Your task to perform on an android device: Open settings Image 0: 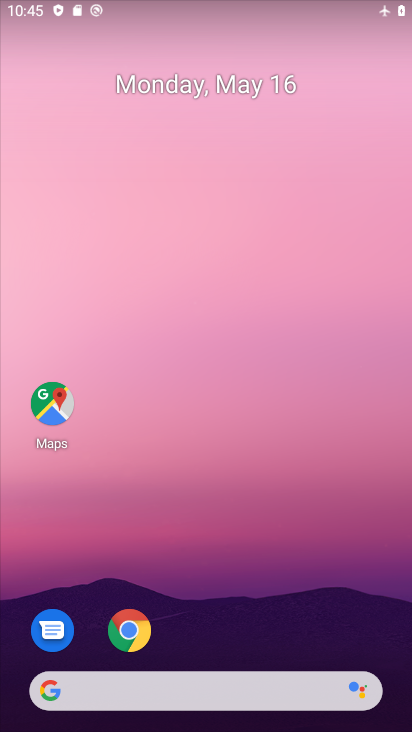
Step 0: drag from (211, 652) to (236, 213)
Your task to perform on an android device: Open settings Image 1: 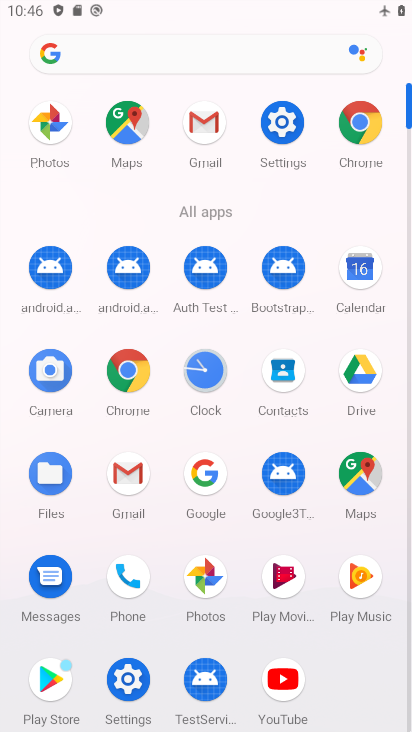
Step 1: click (279, 112)
Your task to perform on an android device: Open settings Image 2: 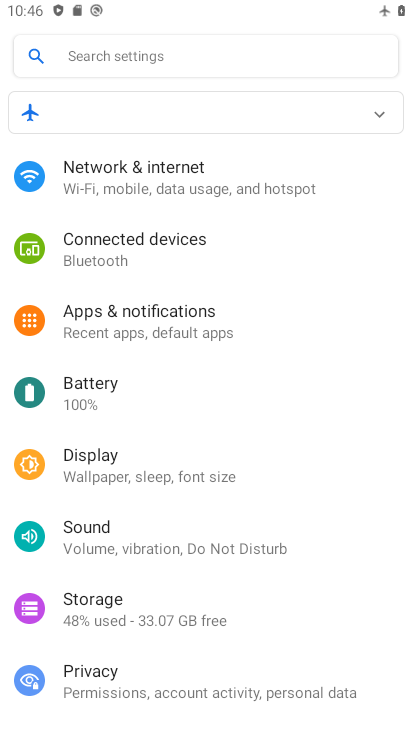
Step 2: task complete